Your task to perform on an android device: Go to wifi settings Image 0: 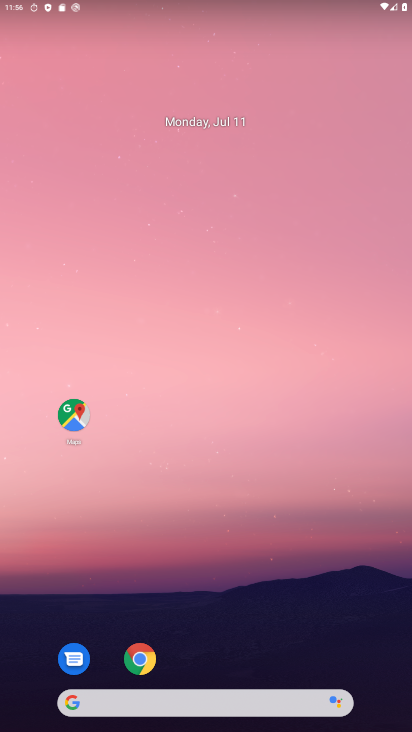
Step 0: drag from (213, 680) to (246, 0)
Your task to perform on an android device: Go to wifi settings Image 1: 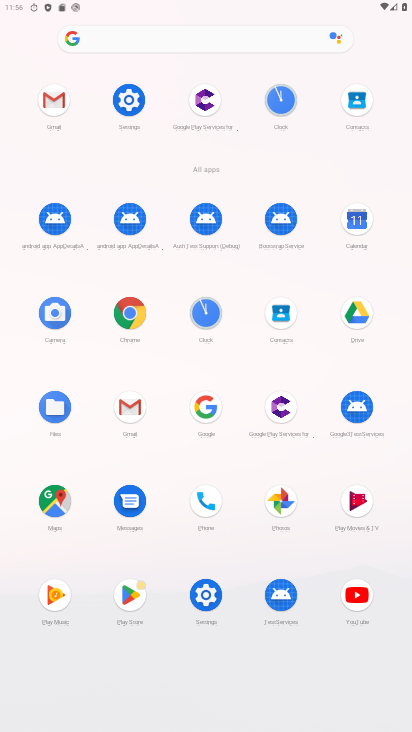
Step 1: click (119, 99)
Your task to perform on an android device: Go to wifi settings Image 2: 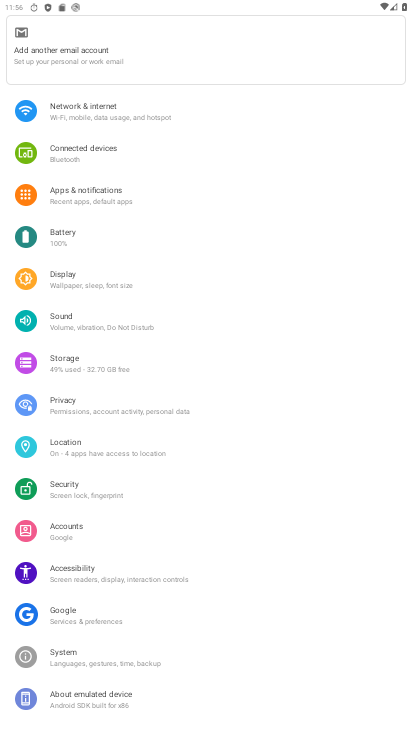
Step 2: click (142, 118)
Your task to perform on an android device: Go to wifi settings Image 3: 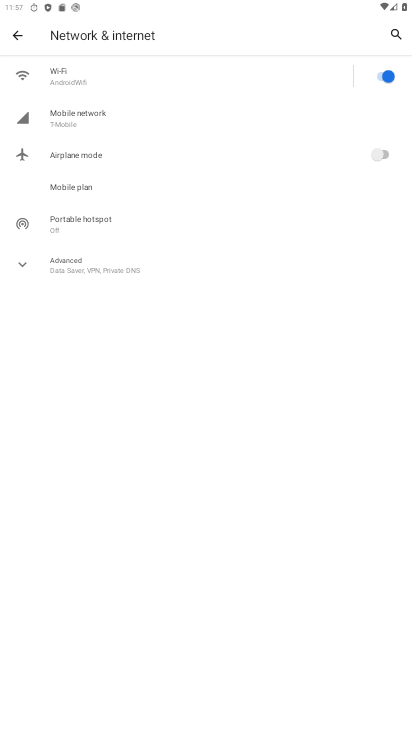
Step 3: click (122, 74)
Your task to perform on an android device: Go to wifi settings Image 4: 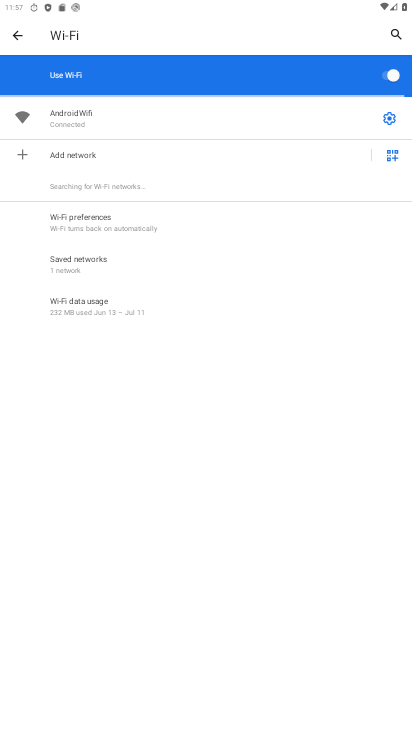
Step 4: task complete